Your task to perform on an android device: Open Yahoo.com Image 0: 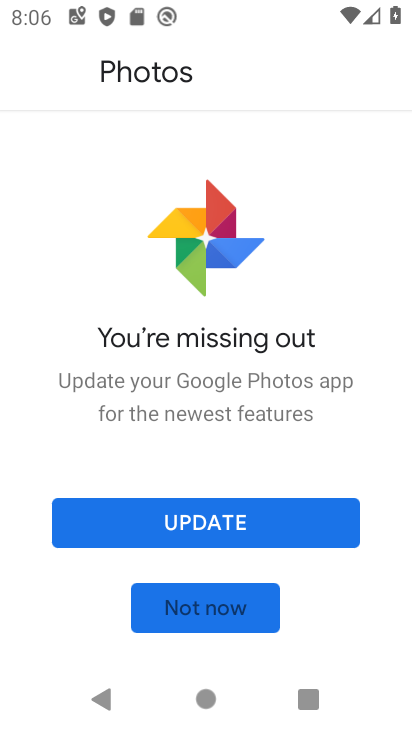
Step 0: press home button
Your task to perform on an android device: Open Yahoo.com Image 1: 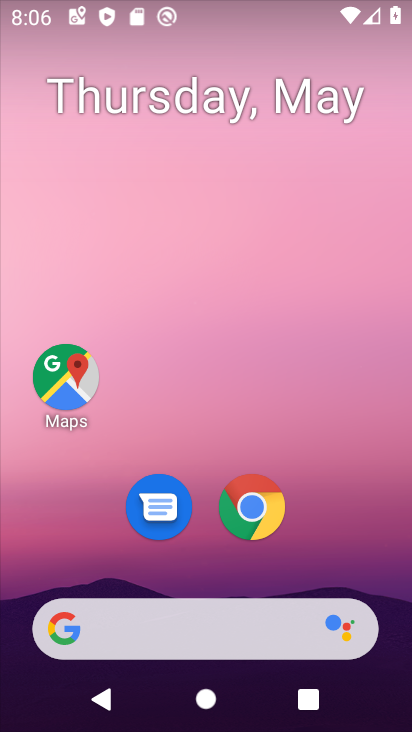
Step 1: drag from (290, 674) to (234, 218)
Your task to perform on an android device: Open Yahoo.com Image 2: 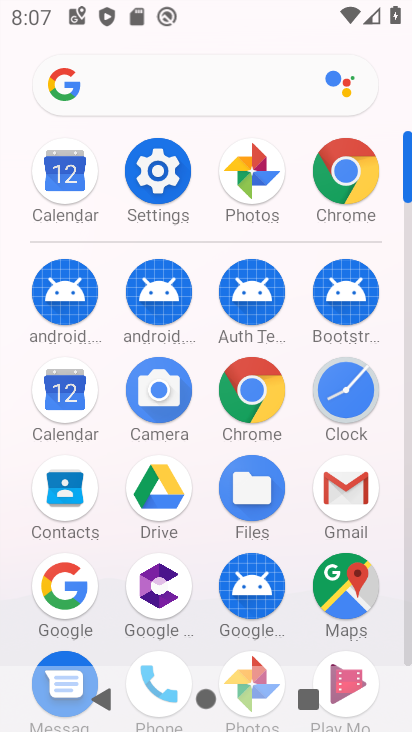
Step 2: click (332, 187)
Your task to perform on an android device: Open Yahoo.com Image 3: 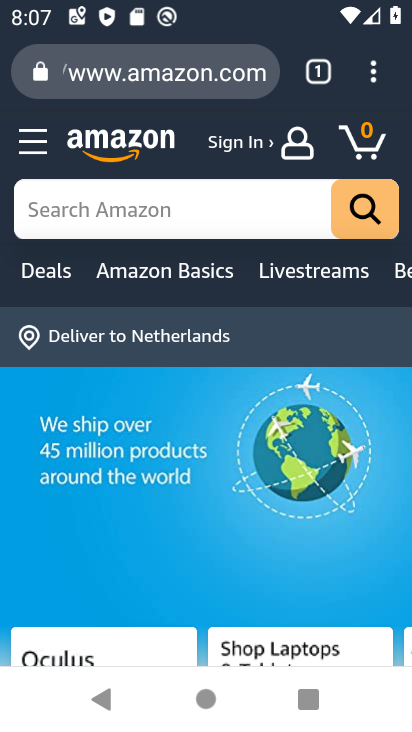
Step 3: click (159, 75)
Your task to perform on an android device: Open Yahoo.com Image 4: 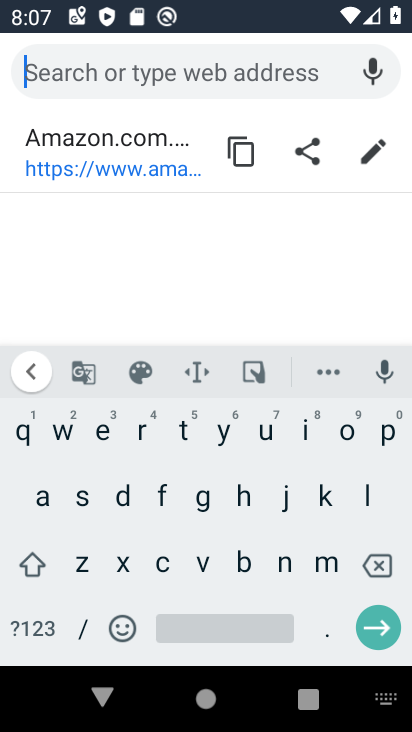
Step 4: click (221, 431)
Your task to perform on an android device: Open Yahoo.com Image 5: 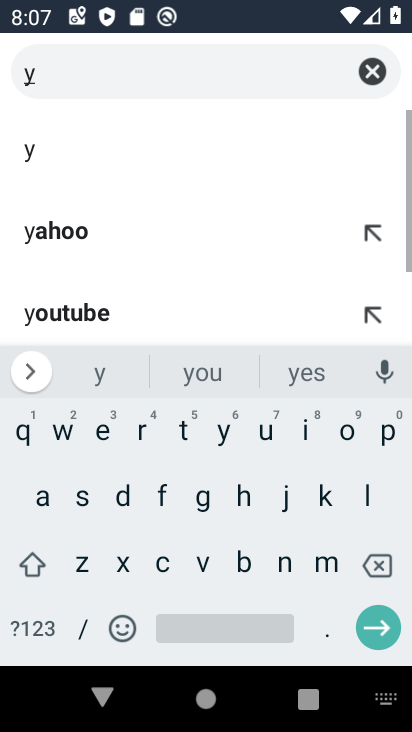
Step 5: click (113, 237)
Your task to perform on an android device: Open Yahoo.com Image 6: 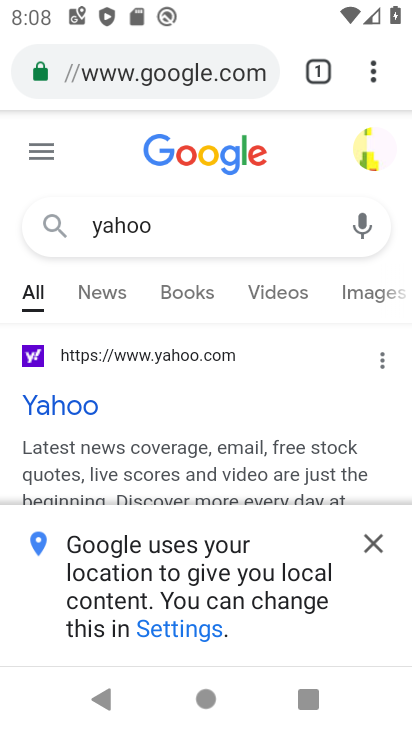
Step 6: click (43, 391)
Your task to perform on an android device: Open Yahoo.com Image 7: 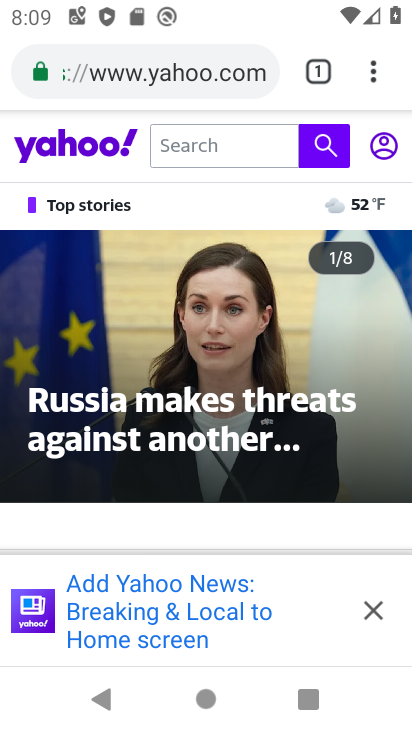
Step 7: task complete